Your task to perform on an android device: toggle improve location accuracy Image 0: 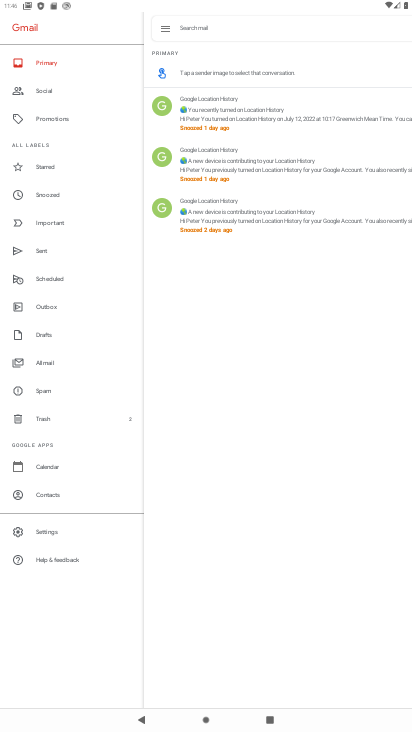
Step 0: press home button
Your task to perform on an android device: toggle improve location accuracy Image 1: 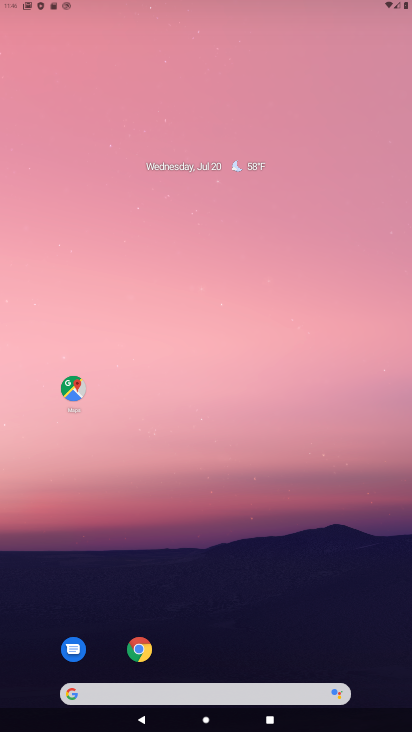
Step 1: drag from (209, 564) to (199, 69)
Your task to perform on an android device: toggle improve location accuracy Image 2: 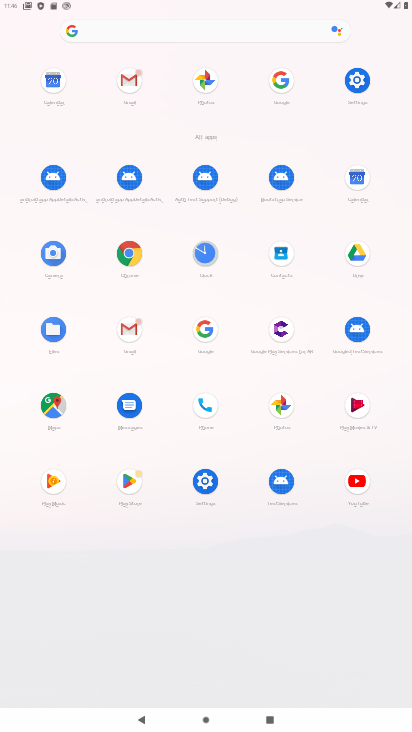
Step 2: click (353, 82)
Your task to perform on an android device: toggle improve location accuracy Image 3: 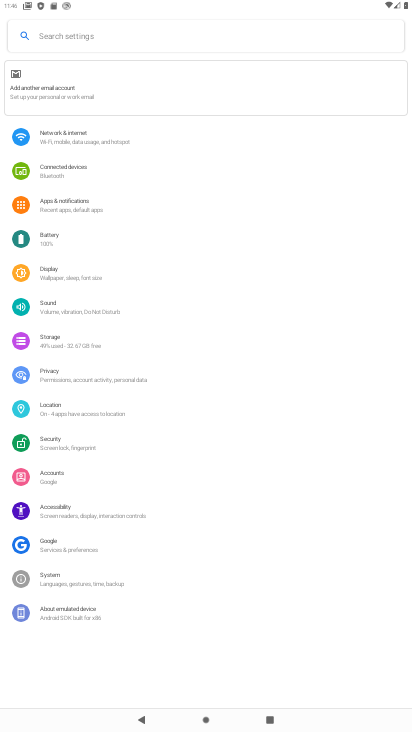
Step 3: click (87, 412)
Your task to perform on an android device: toggle improve location accuracy Image 4: 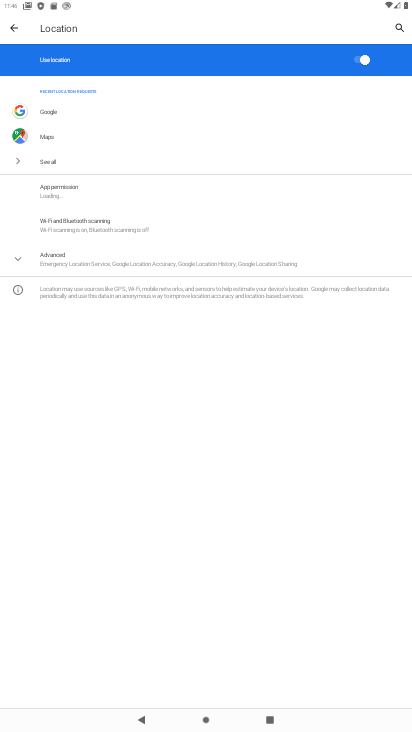
Step 4: click (66, 263)
Your task to perform on an android device: toggle improve location accuracy Image 5: 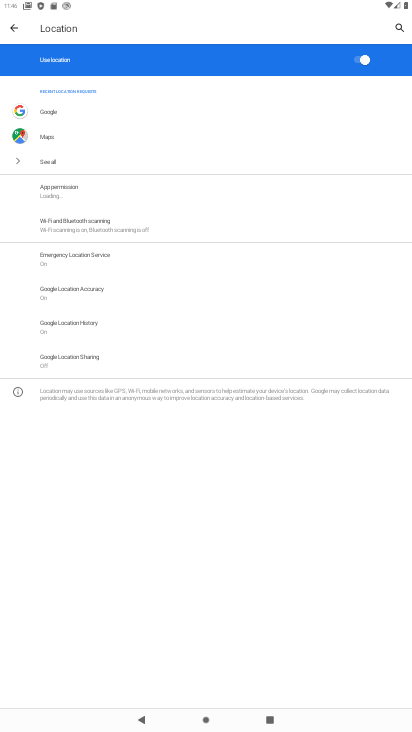
Step 5: click (107, 284)
Your task to perform on an android device: toggle improve location accuracy Image 6: 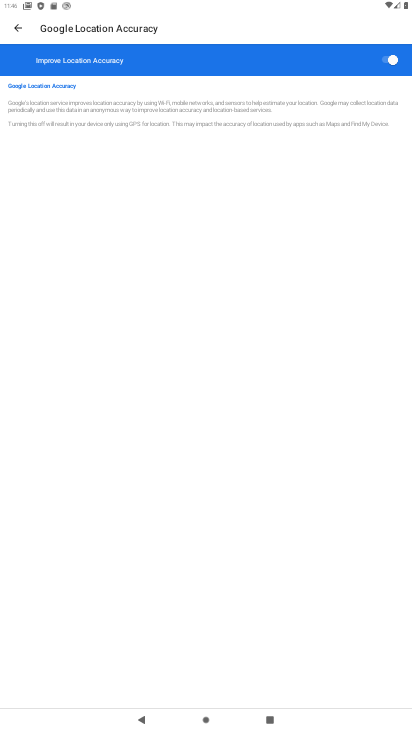
Step 6: click (384, 73)
Your task to perform on an android device: toggle improve location accuracy Image 7: 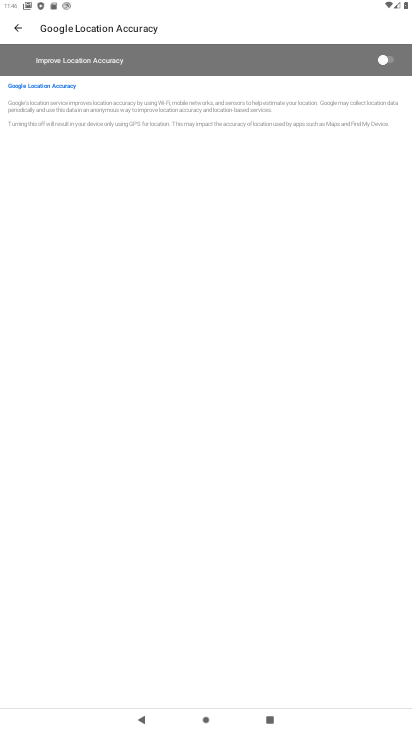
Step 7: task complete